Your task to perform on an android device: delete the emails in spam in the gmail app Image 0: 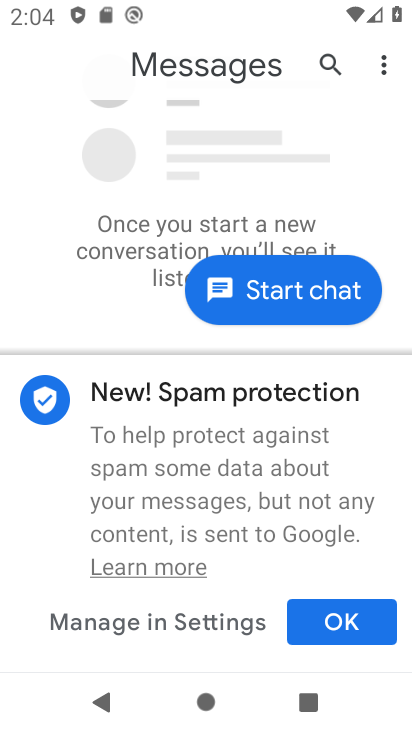
Step 0: press home button
Your task to perform on an android device: delete the emails in spam in the gmail app Image 1: 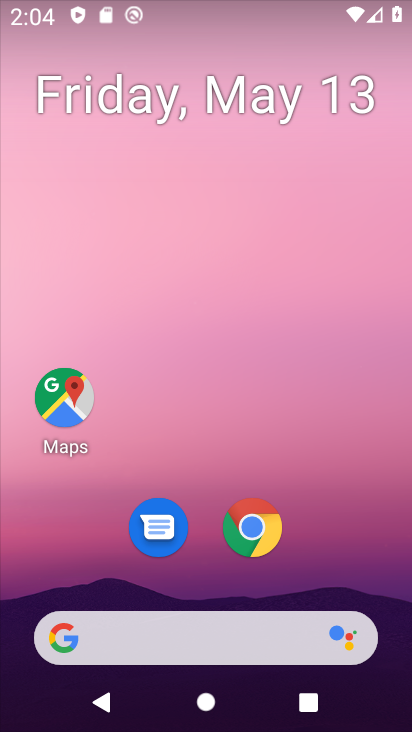
Step 1: drag from (212, 585) to (218, 123)
Your task to perform on an android device: delete the emails in spam in the gmail app Image 2: 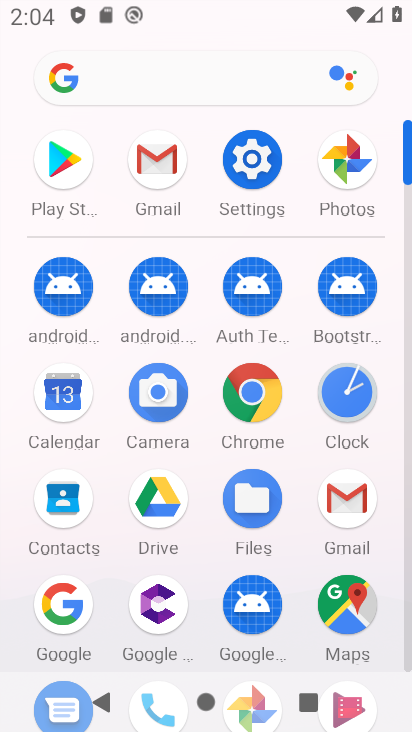
Step 2: click (178, 152)
Your task to perform on an android device: delete the emails in spam in the gmail app Image 3: 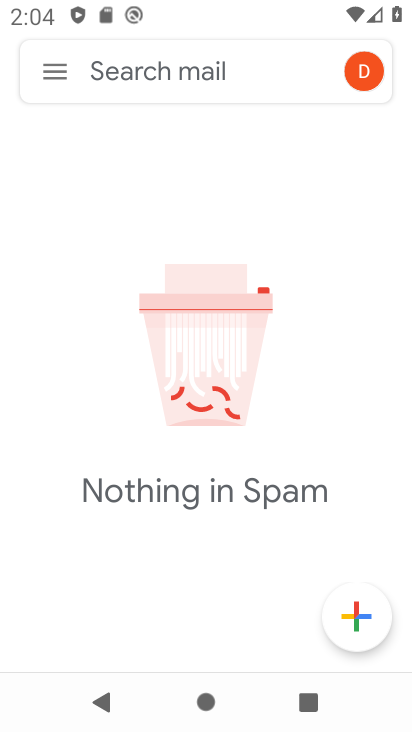
Step 3: task complete